Your task to perform on an android device: Search for vegetarian restaurants on Maps Image 0: 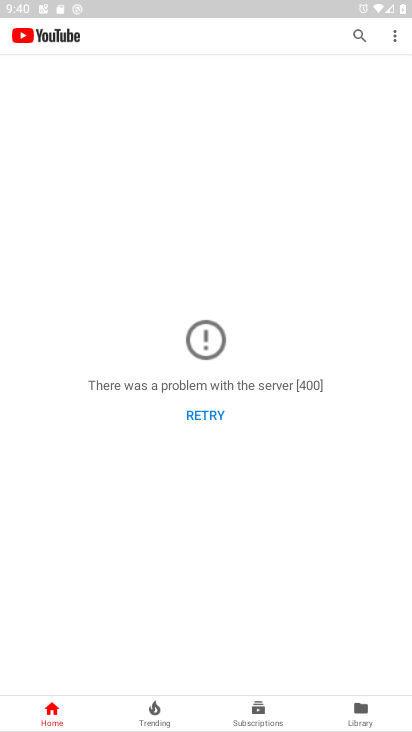
Step 0: press home button
Your task to perform on an android device: Search for vegetarian restaurants on Maps Image 1: 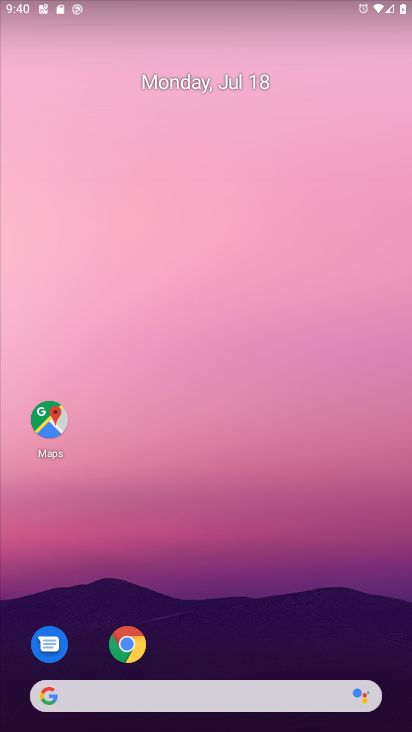
Step 1: click (146, 634)
Your task to perform on an android device: Search for vegetarian restaurants on Maps Image 2: 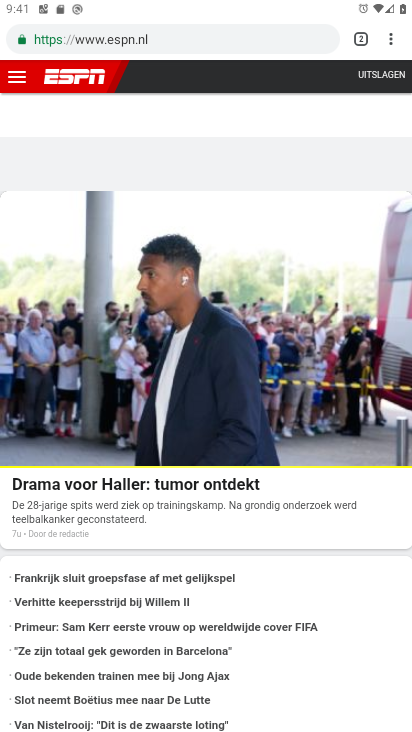
Step 2: press home button
Your task to perform on an android device: Search for vegetarian restaurants on Maps Image 3: 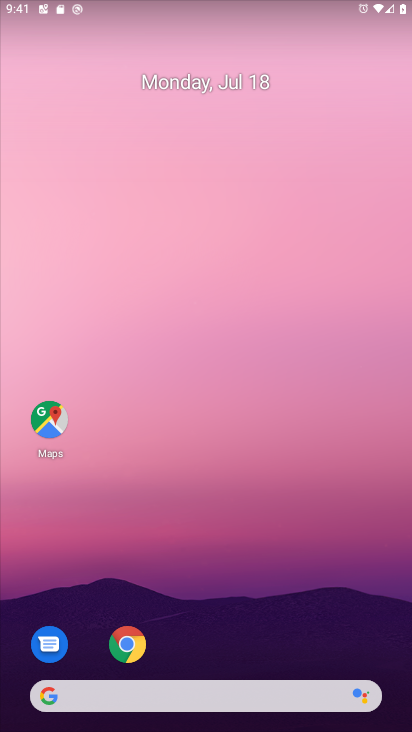
Step 3: click (60, 405)
Your task to perform on an android device: Search for vegetarian restaurants on Maps Image 4: 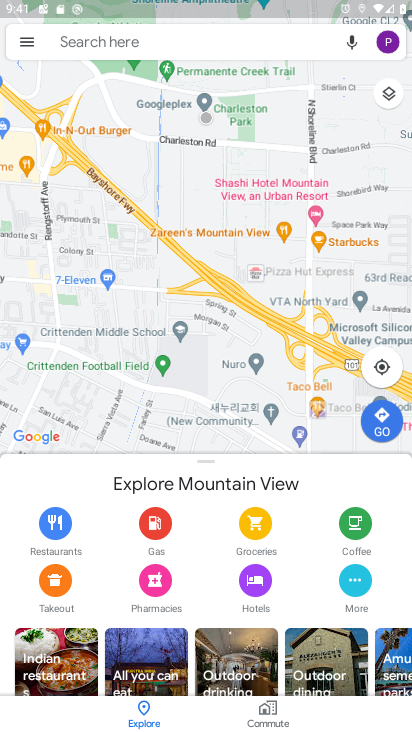
Step 4: click (215, 57)
Your task to perform on an android device: Search for vegetarian restaurants on Maps Image 5: 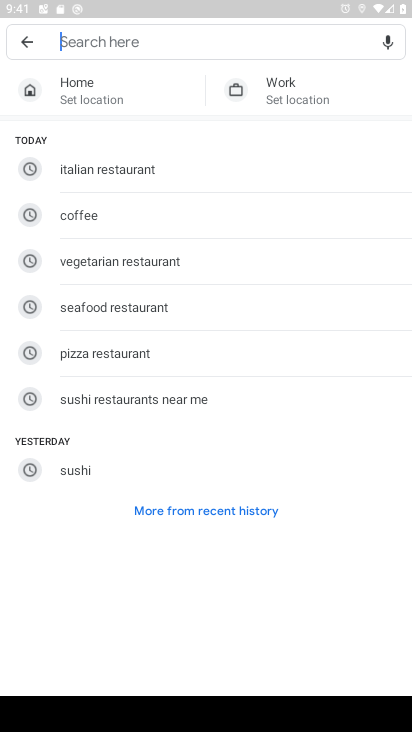
Step 5: click (171, 250)
Your task to perform on an android device: Search for vegetarian restaurants on Maps Image 6: 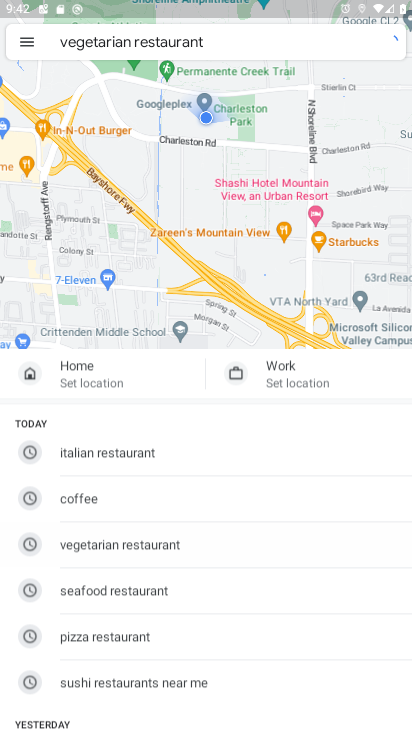
Step 6: task complete